Your task to perform on an android device: open app "Google Photos" (install if not already installed) Image 0: 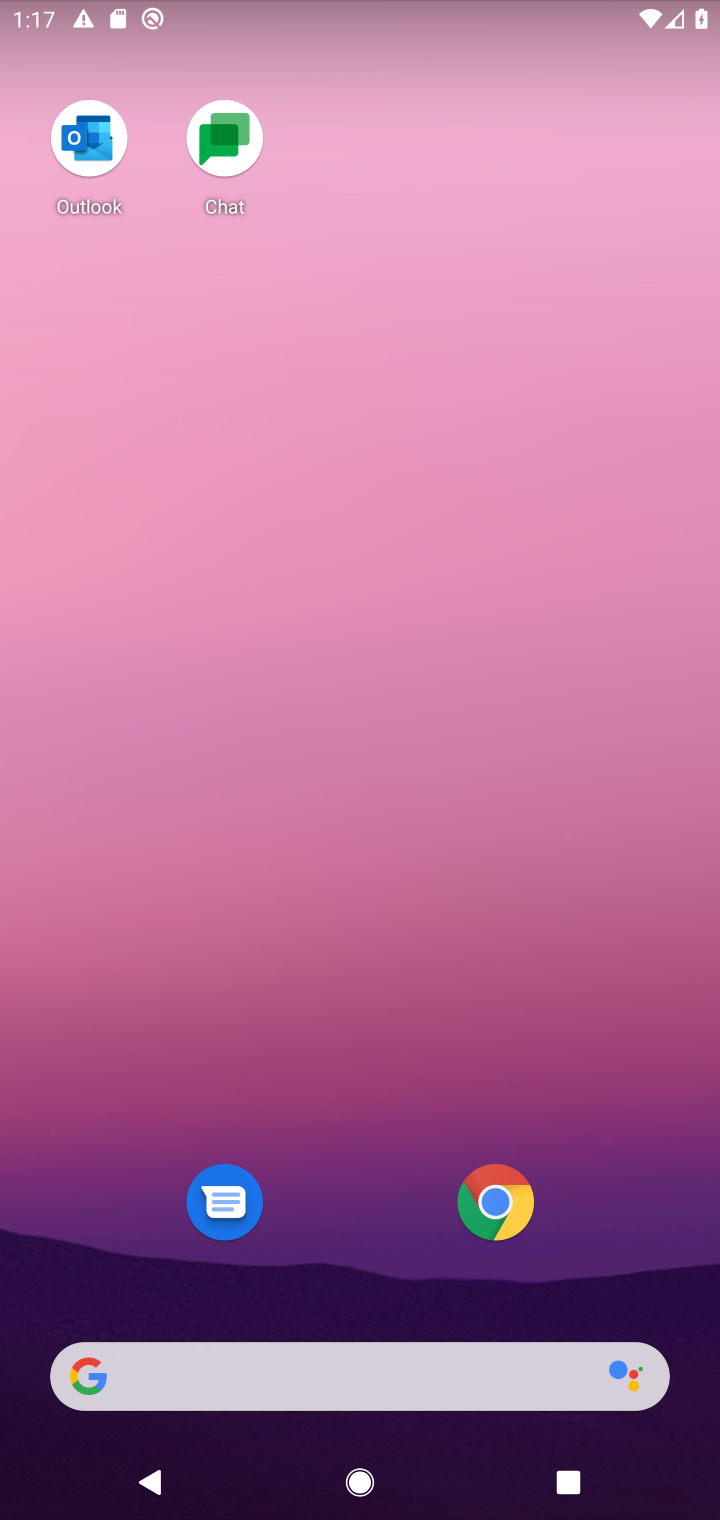
Step 0: click (317, 1368)
Your task to perform on an android device: open app "Google Photos" (install if not already installed) Image 1: 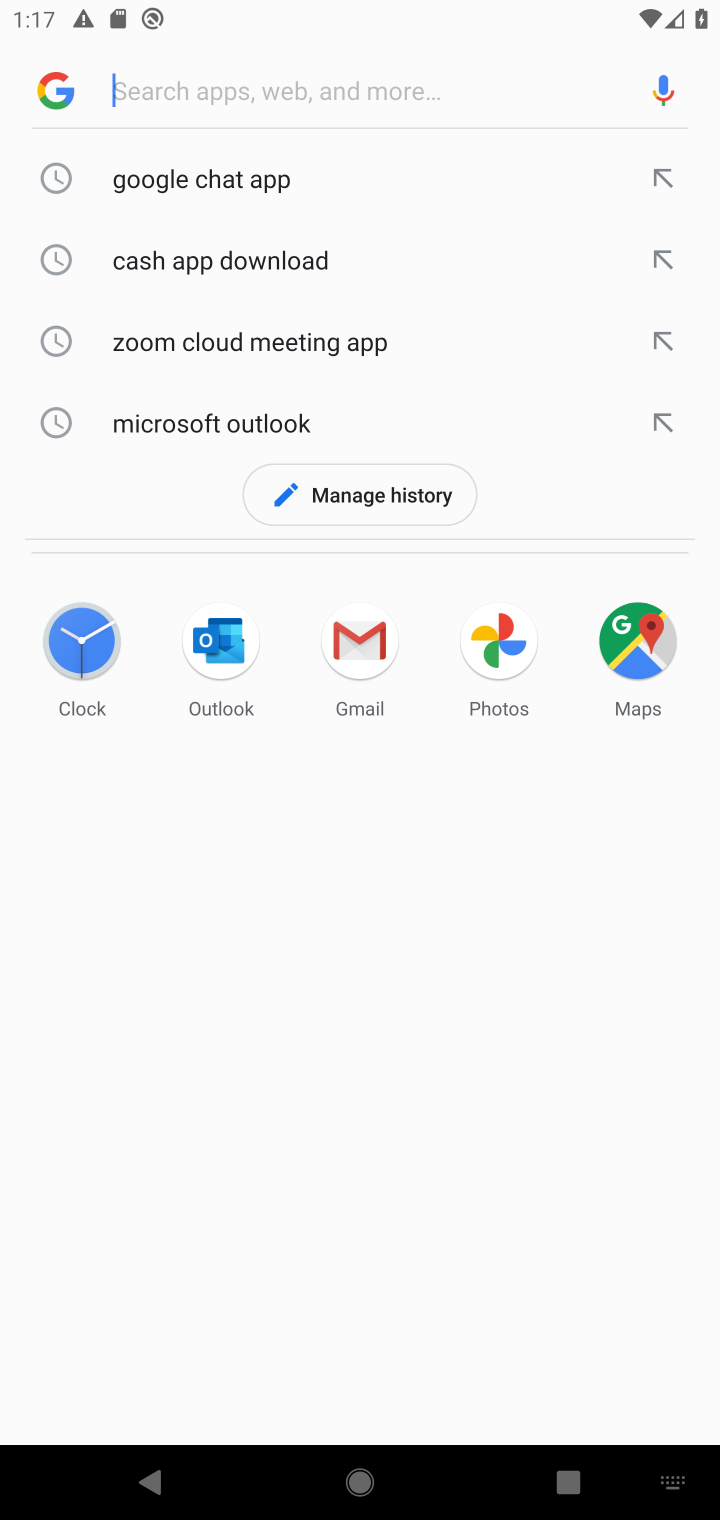
Step 1: click (482, 644)
Your task to perform on an android device: open app "Google Photos" (install if not already installed) Image 2: 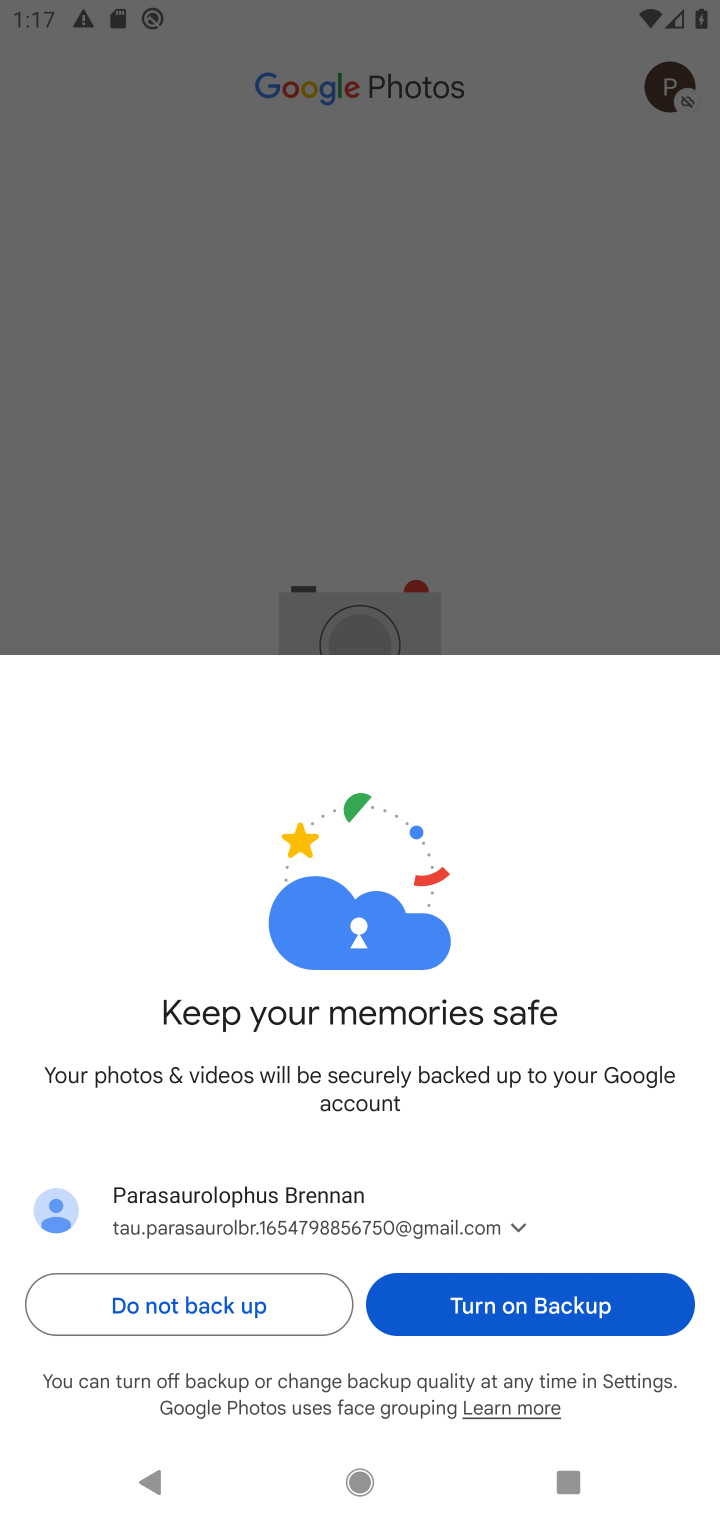
Step 2: click (459, 1307)
Your task to perform on an android device: open app "Google Photos" (install if not already installed) Image 3: 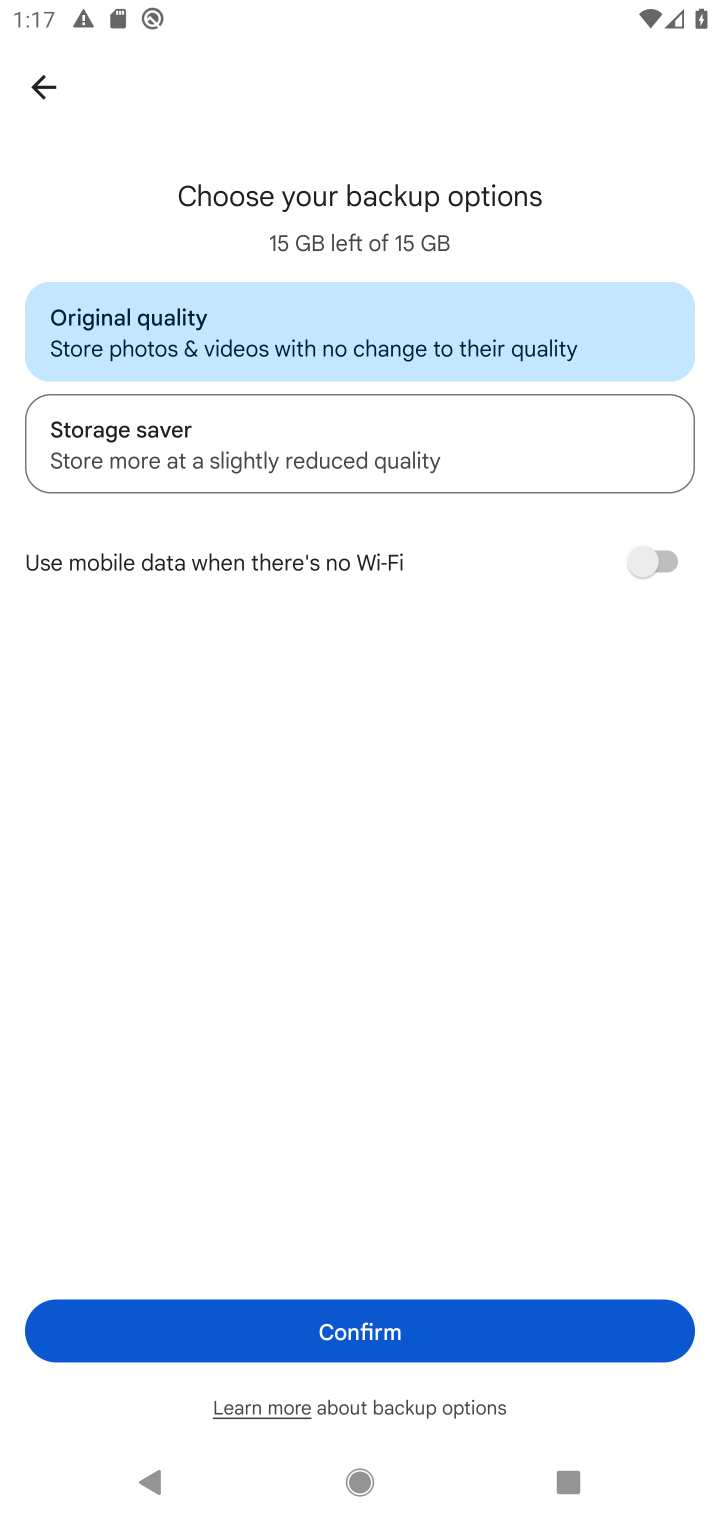
Step 3: click (568, 1328)
Your task to perform on an android device: open app "Google Photos" (install if not already installed) Image 4: 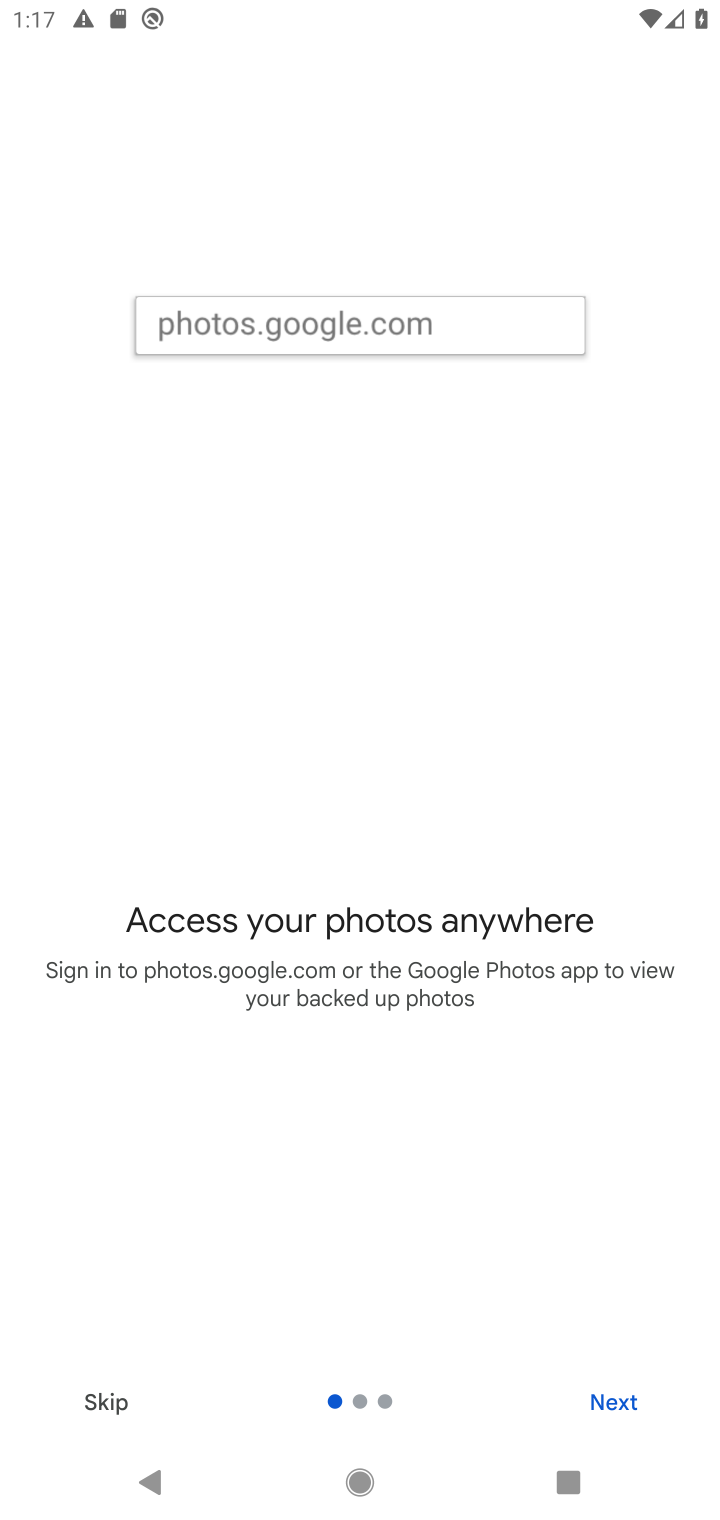
Step 4: click (590, 1364)
Your task to perform on an android device: open app "Google Photos" (install if not already installed) Image 5: 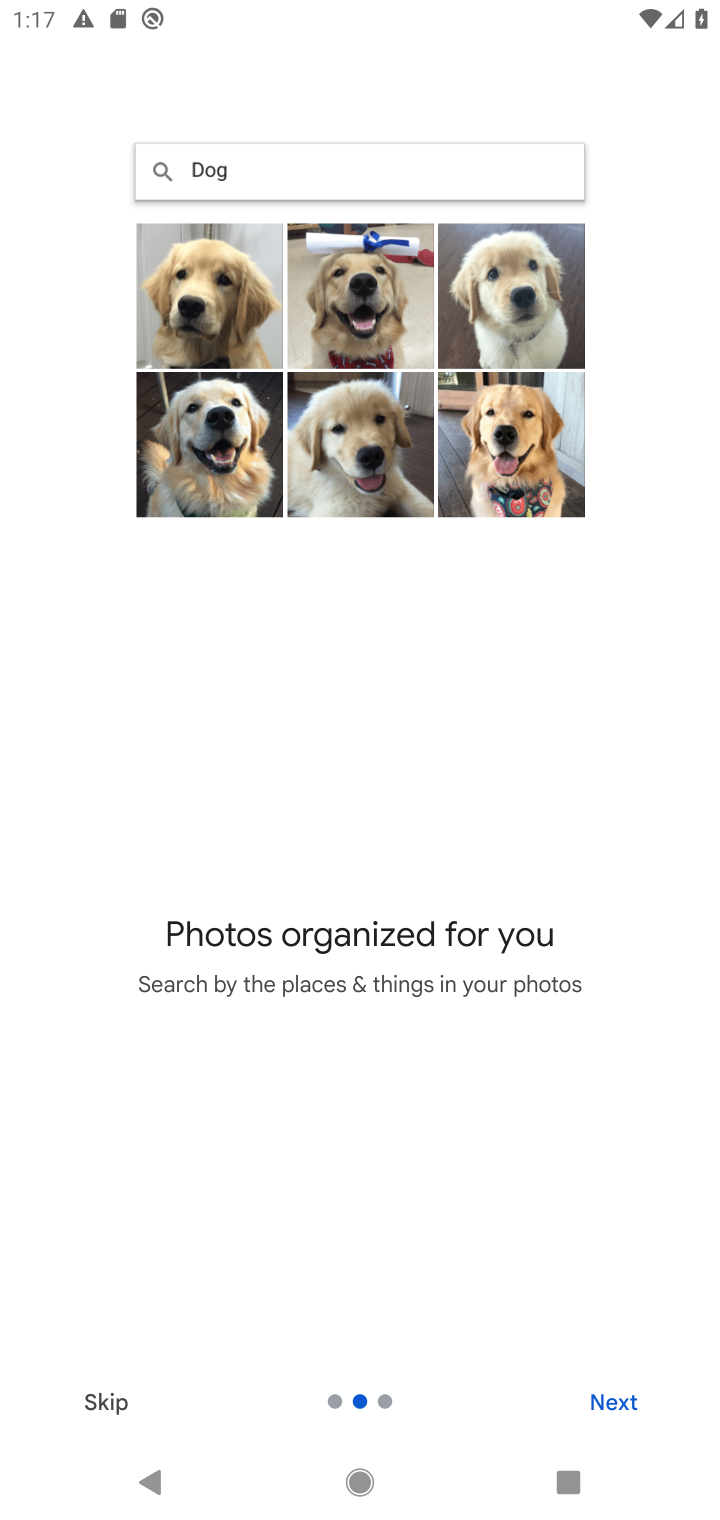
Step 5: click (615, 1386)
Your task to perform on an android device: open app "Google Photos" (install if not already installed) Image 6: 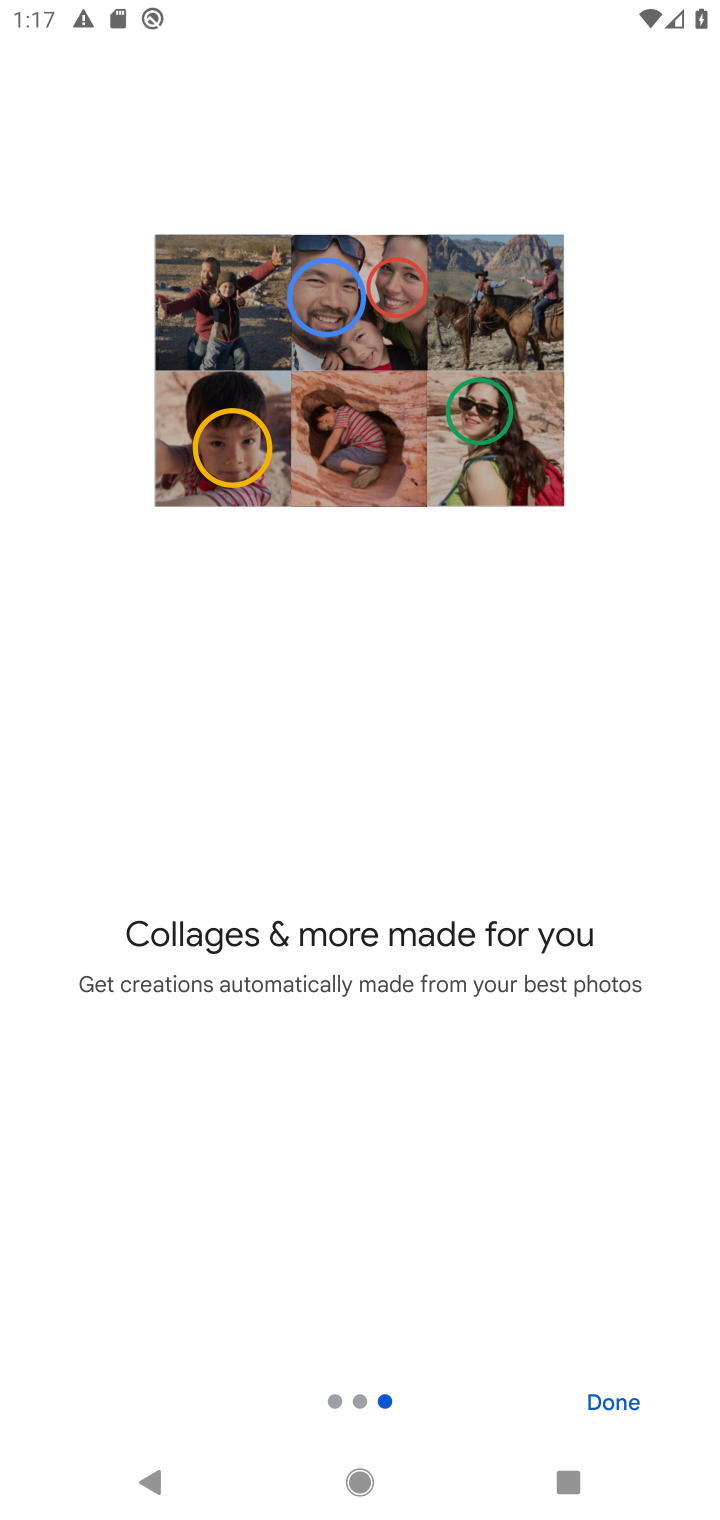
Step 6: click (615, 1386)
Your task to perform on an android device: open app "Google Photos" (install if not already installed) Image 7: 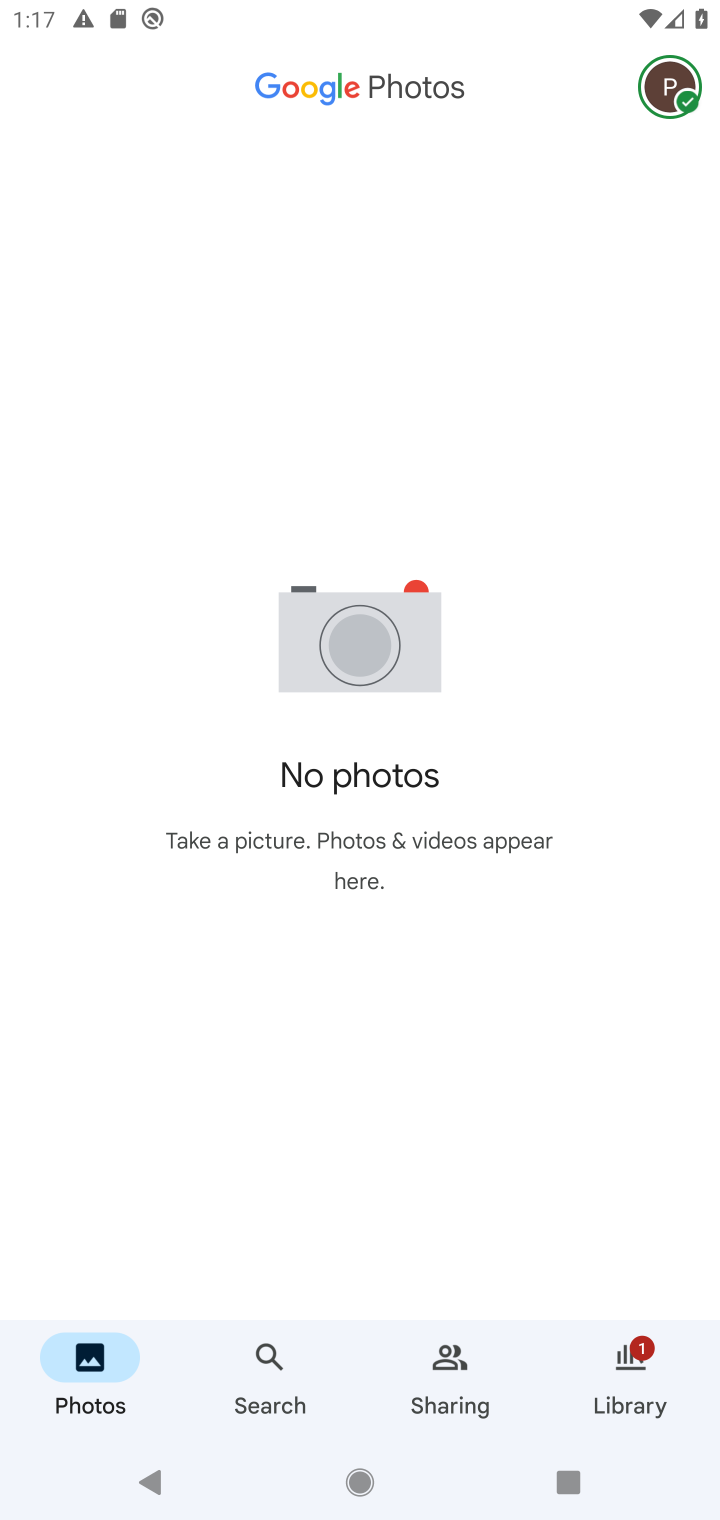
Step 7: task complete